Your task to perform on an android device: Go to Google maps Image 0: 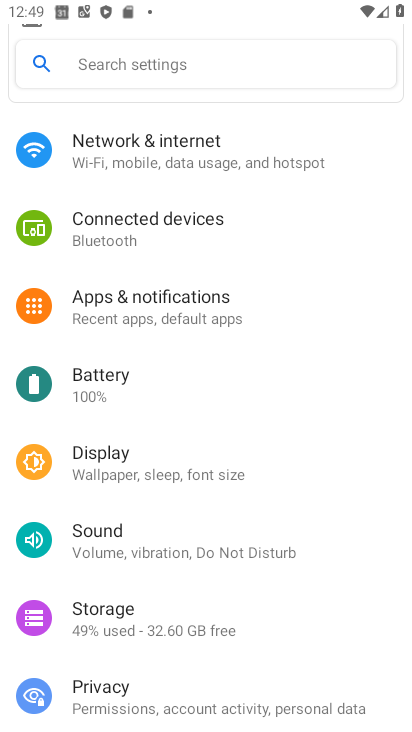
Step 0: press back button
Your task to perform on an android device: Go to Google maps Image 1: 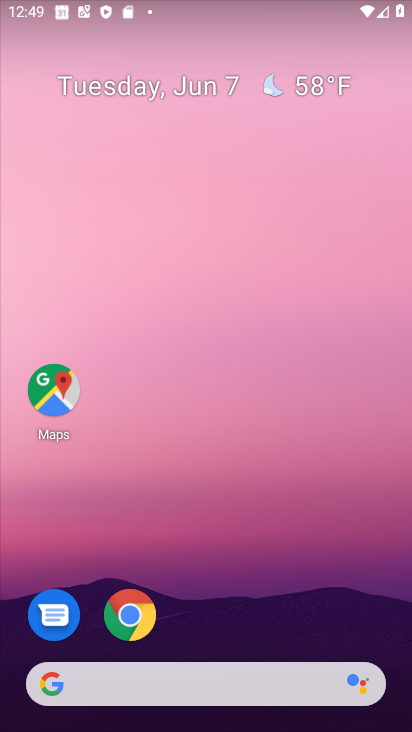
Step 1: click (54, 394)
Your task to perform on an android device: Go to Google maps Image 2: 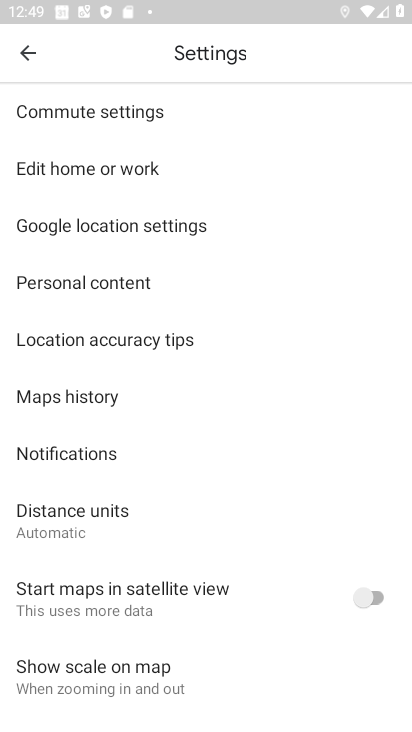
Step 2: click (28, 53)
Your task to perform on an android device: Go to Google maps Image 3: 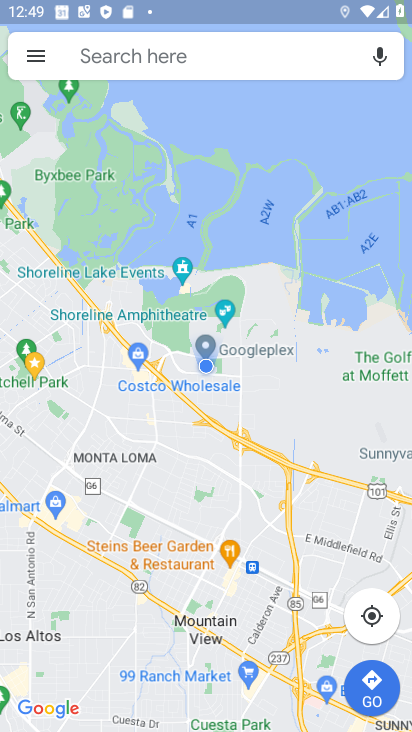
Step 3: task complete